Your task to perform on an android device: see sites visited before in the chrome app Image 0: 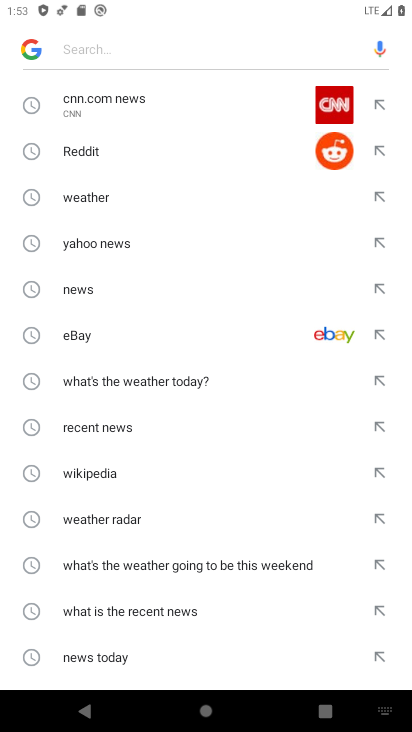
Step 0: press home button
Your task to perform on an android device: see sites visited before in the chrome app Image 1: 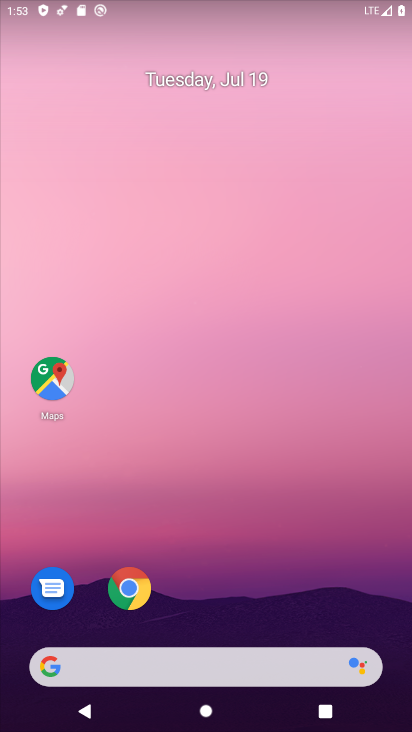
Step 1: click (129, 576)
Your task to perform on an android device: see sites visited before in the chrome app Image 2: 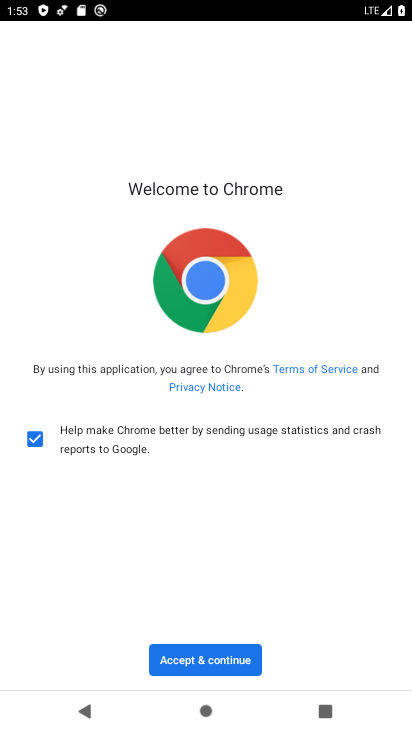
Step 2: click (199, 655)
Your task to perform on an android device: see sites visited before in the chrome app Image 3: 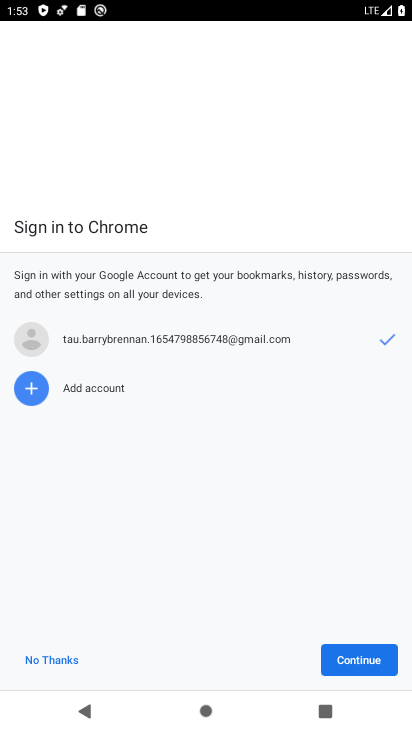
Step 3: click (56, 653)
Your task to perform on an android device: see sites visited before in the chrome app Image 4: 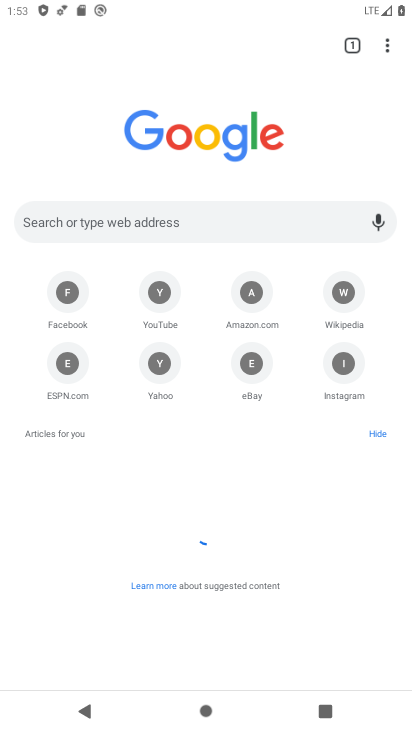
Step 4: click (387, 43)
Your task to perform on an android device: see sites visited before in the chrome app Image 5: 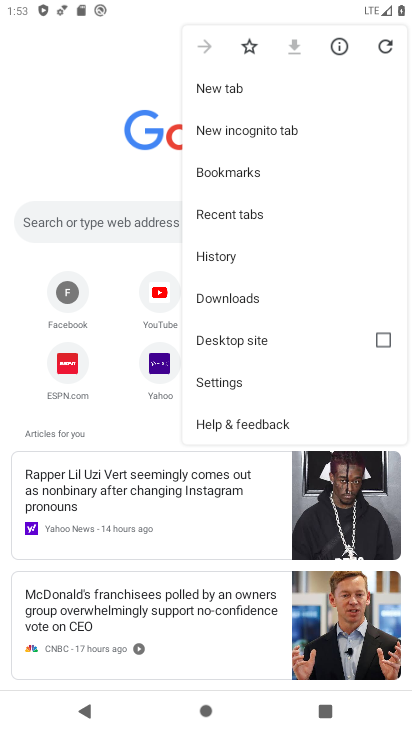
Step 5: click (215, 257)
Your task to perform on an android device: see sites visited before in the chrome app Image 6: 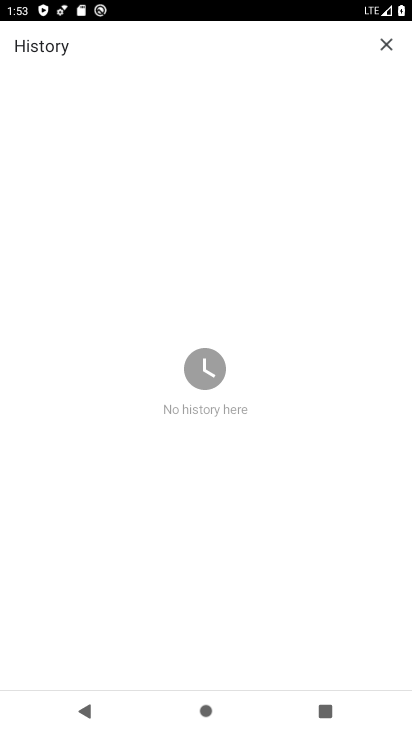
Step 6: task complete